Your task to perform on an android device: create a new album in the google photos Image 0: 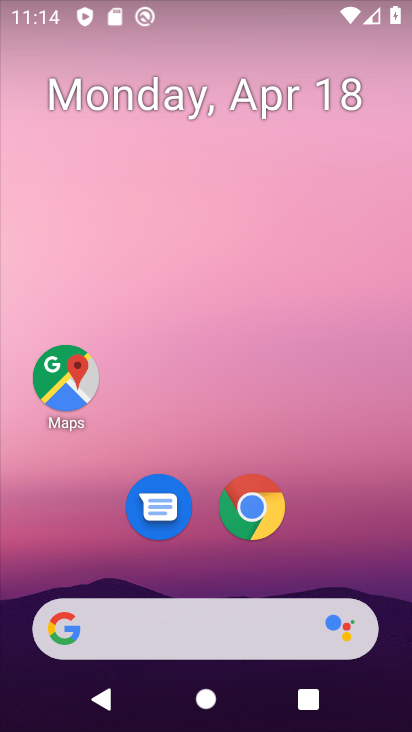
Step 0: drag from (336, 543) to (324, 165)
Your task to perform on an android device: create a new album in the google photos Image 1: 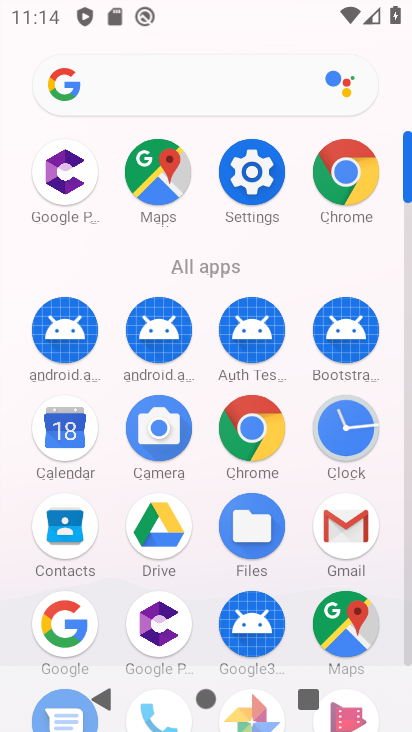
Step 1: drag from (210, 645) to (232, 384)
Your task to perform on an android device: create a new album in the google photos Image 2: 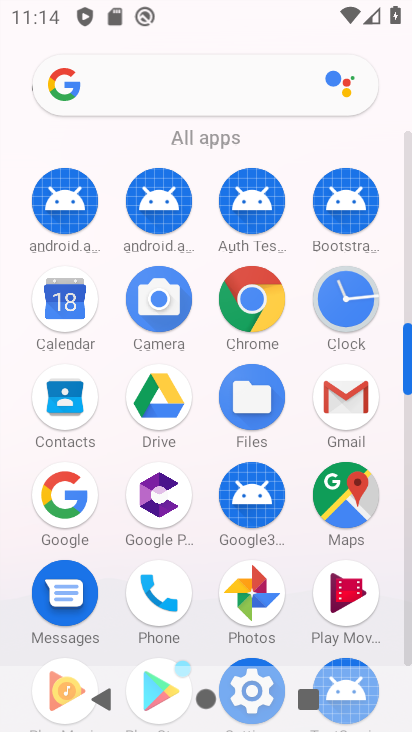
Step 2: click (260, 577)
Your task to perform on an android device: create a new album in the google photos Image 3: 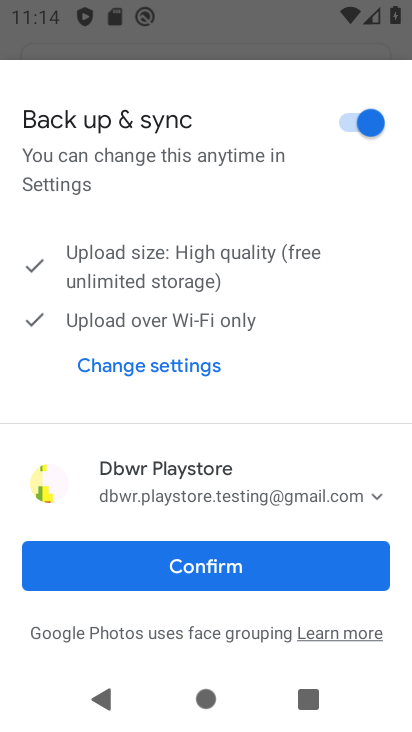
Step 3: click (254, 569)
Your task to perform on an android device: create a new album in the google photos Image 4: 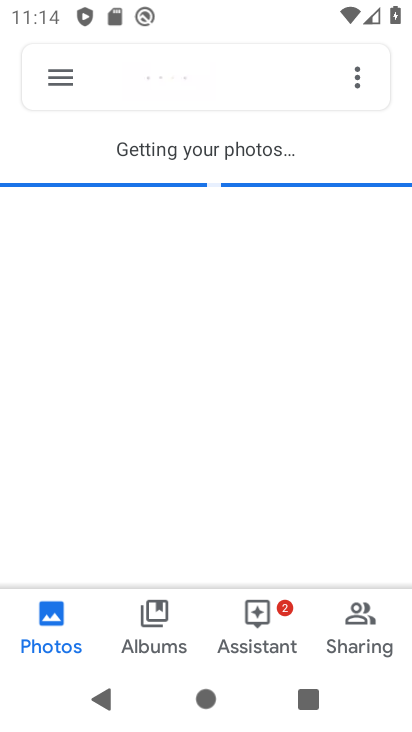
Step 4: click (164, 617)
Your task to perform on an android device: create a new album in the google photos Image 5: 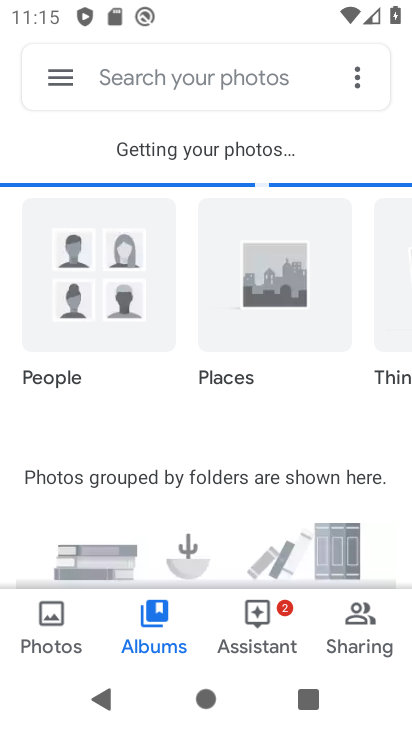
Step 5: drag from (355, 81) to (323, 110)
Your task to perform on an android device: create a new album in the google photos Image 6: 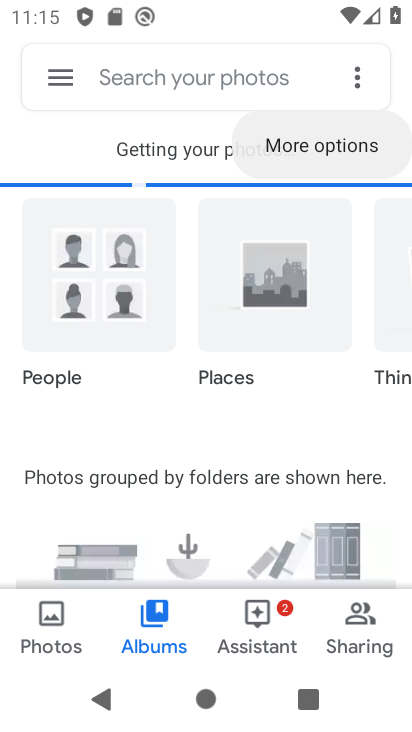
Step 6: click (361, 74)
Your task to perform on an android device: create a new album in the google photos Image 7: 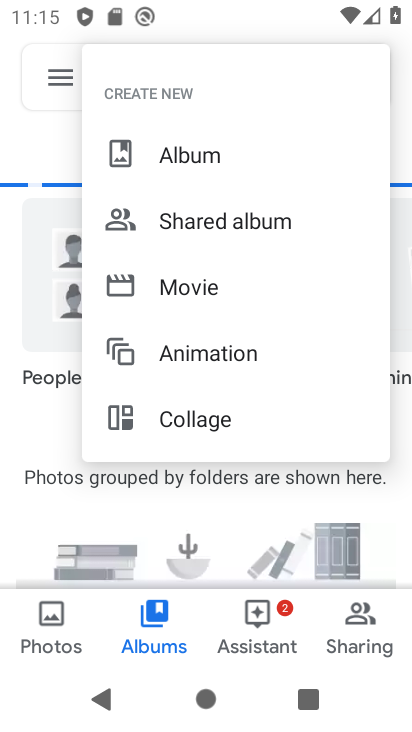
Step 7: click (197, 155)
Your task to perform on an android device: create a new album in the google photos Image 8: 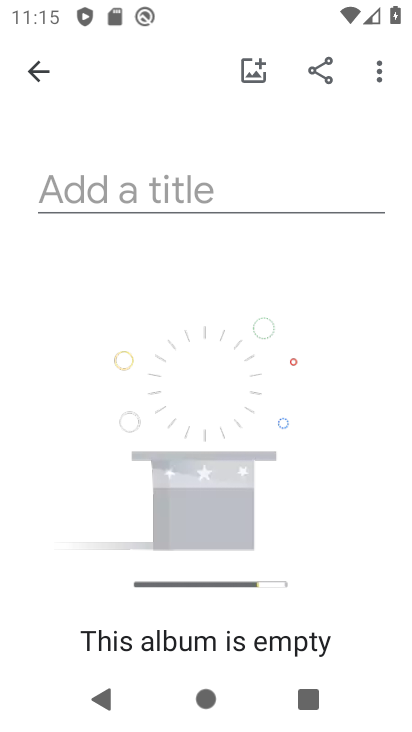
Step 8: click (159, 195)
Your task to perform on an android device: create a new album in the google photos Image 9: 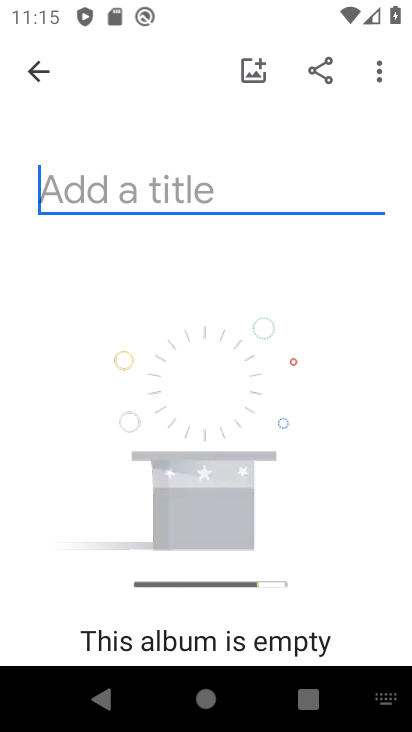
Step 9: type "ram"
Your task to perform on an android device: create a new album in the google photos Image 10: 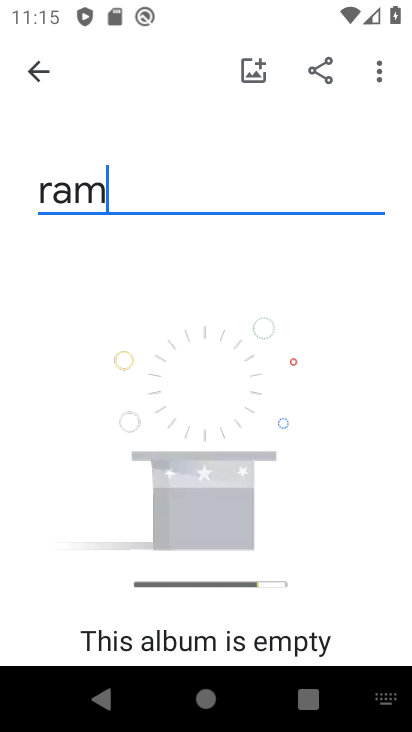
Step 10: click (243, 71)
Your task to perform on an android device: create a new album in the google photos Image 11: 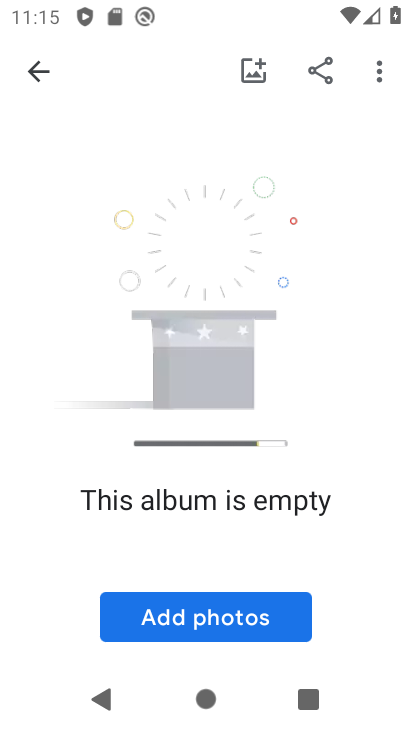
Step 11: click (227, 623)
Your task to perform on an android device: create a new album in the google photos Image 12: 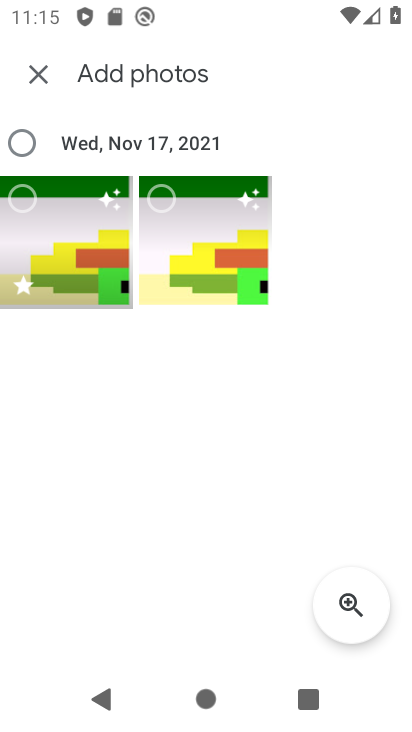
Step 12: click (41, 215)
Your task to perform on an android device: create a new album in the google photos Image 13: 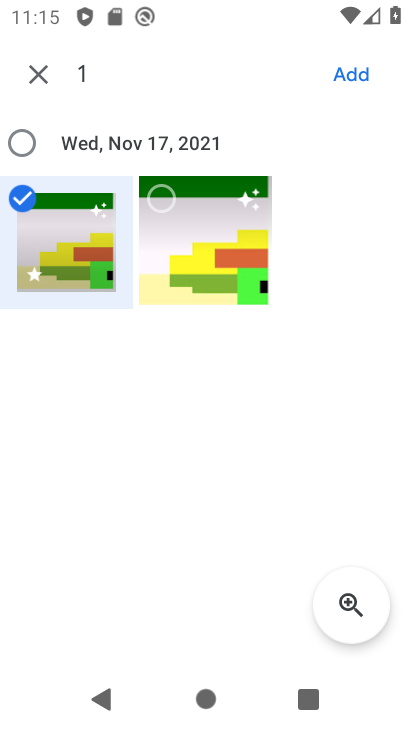
Step 13: click (343, 75)
Your task to perform on an android device: create a new album in the google photos Image 14: 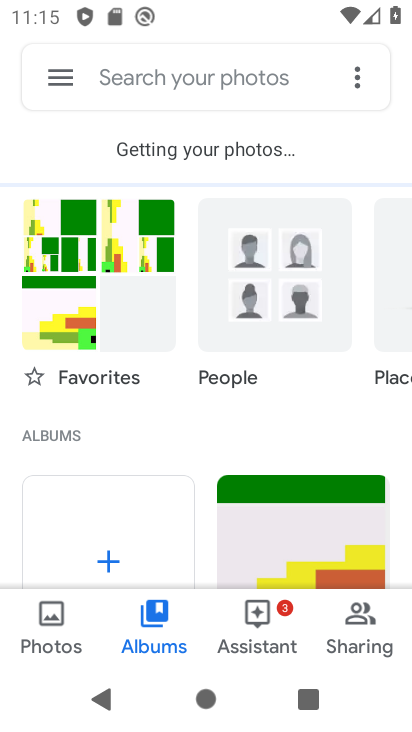
Step 14: task complete